Your task to perform on an android device: Open Android settings Image 0: 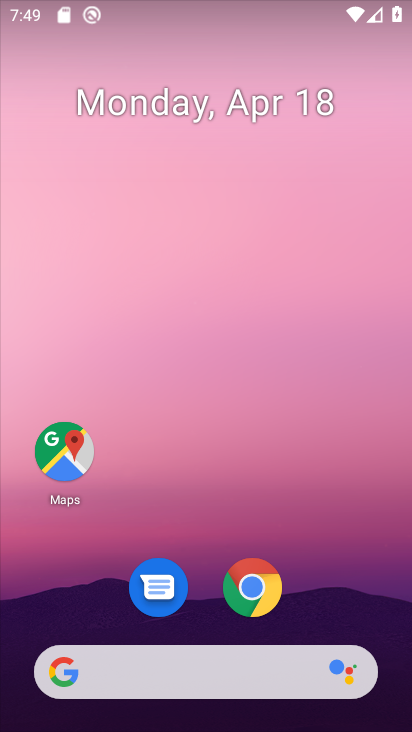
Step 0: drag from (192, 546) to (196, 52)
Your task to perform on an android device: Open Android settings Image 1: 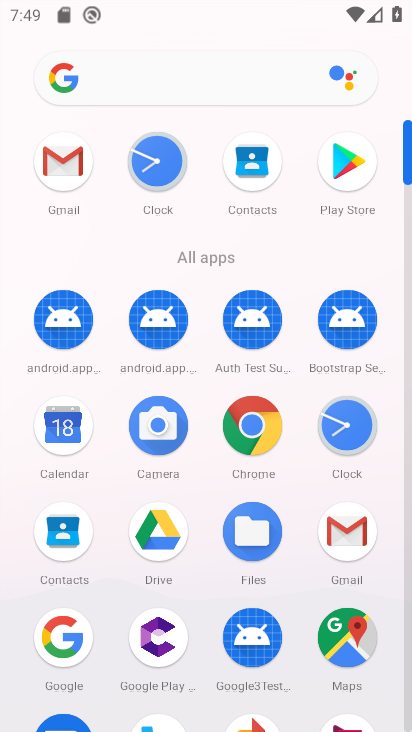
Step 1: drag from (196, 598) to (209, 43)
Your task to perform on an android device: Open Android settings Image 2: 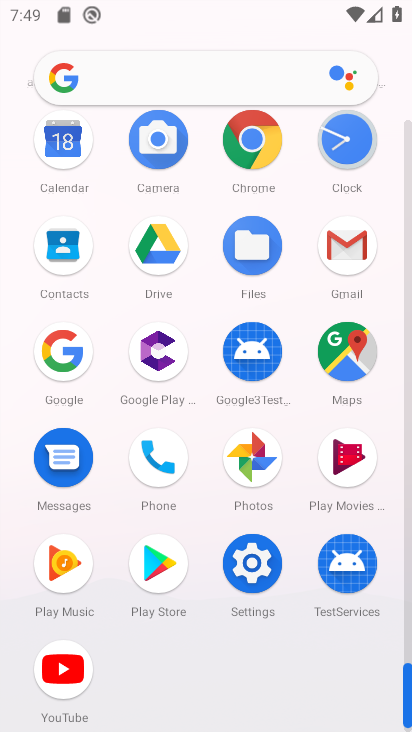
Step 2: click (240, 574)
Your task to perform on an android device: Open Android settings Image 3: 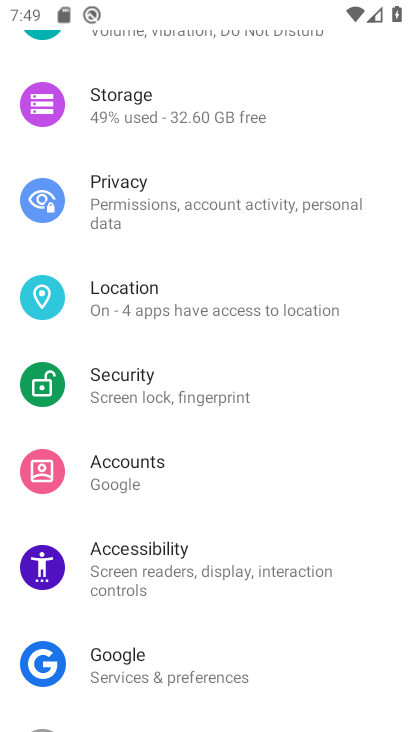
Step 3: drag from (104, 673) to (169, 77)
Your task to perform on an android device: Open Android settings Image 4: 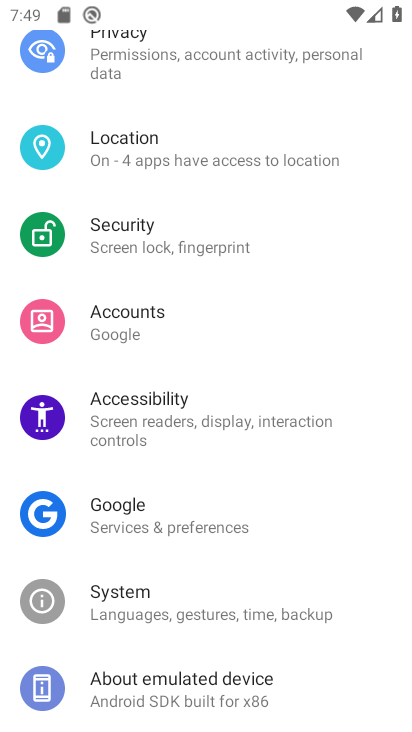
Step 4: click (159, 676)
Your task to perform on an android device: Open Android settings Image 5: 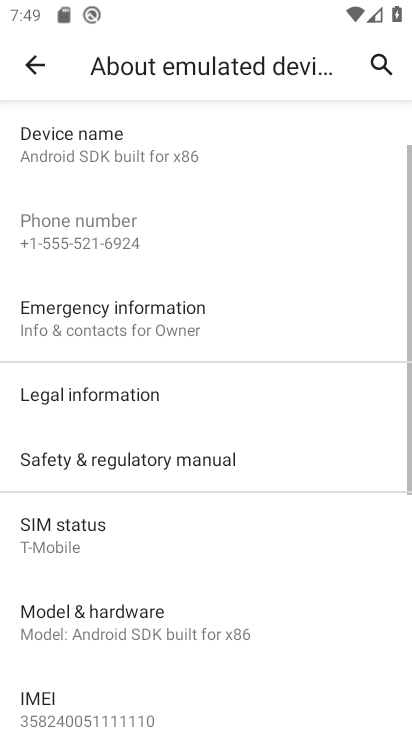
Step 5: drag from (143, 637) to (272, 31)
Your task to perform on an android device: Open Android settings Image 6: 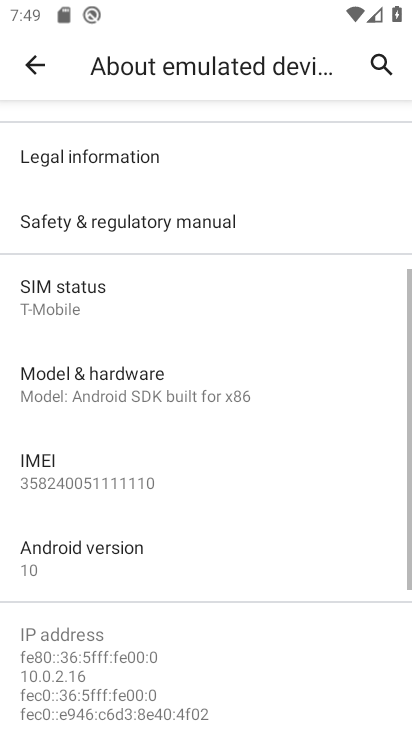
Step 6: click (134, 539)
Your task to perform on an android device: Open Android settings Image 7: 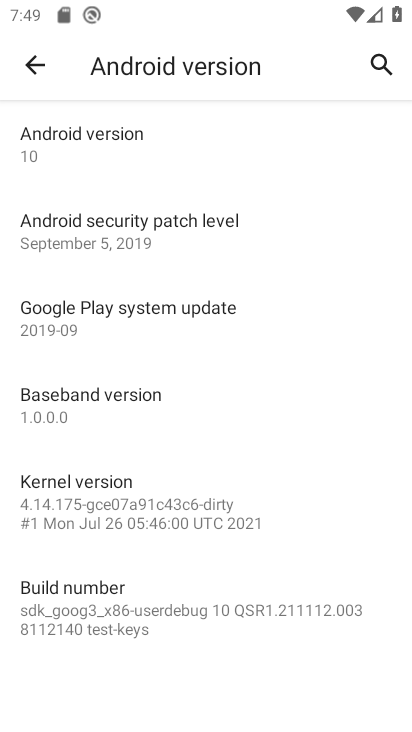
Step 7: task complete